Your task to perform on an android device: Open ESPN.com Image 0: 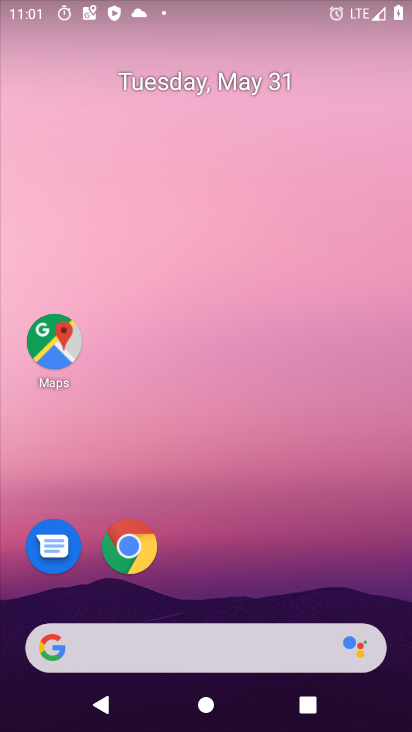
Step 0: click (130, 551)
Your task to perform on an android device: Open ESPN.com Image 1: 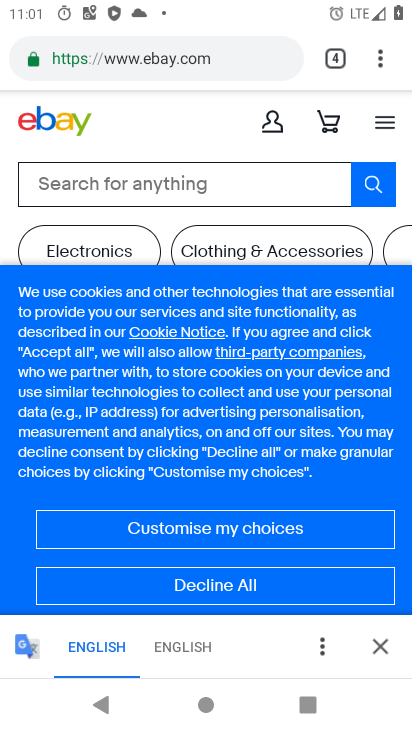
Step 1: click (321, 65)
Your task to perform on an android device: Open ESPN.com Image 2: 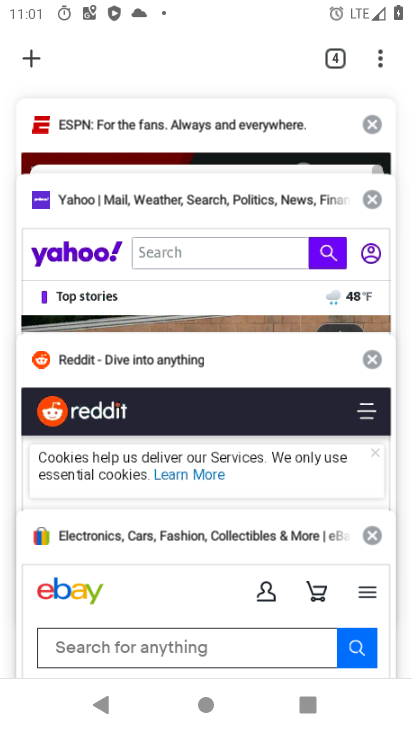
Step 2: click (201, 141)
Your task to perform on an android device: Open ESPN.com Image 3: 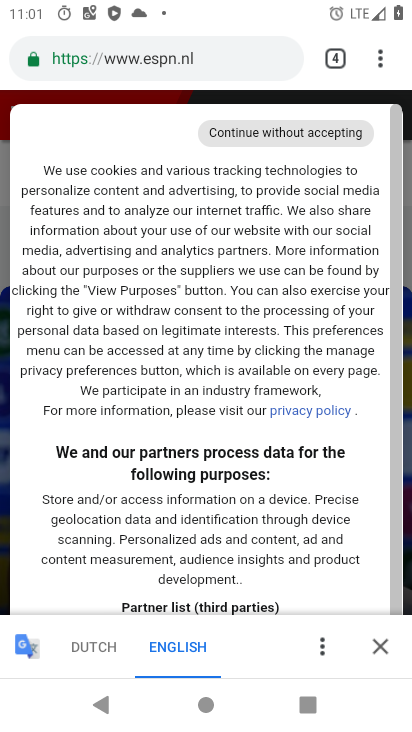
Step 3: task complete